Your task to perform on an android device: Open location settings Image 0: 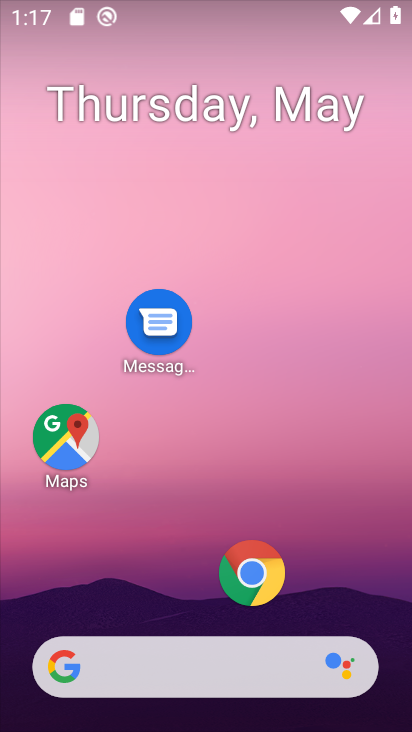
Step 0: drag from (219, 590) to (226, 283)
Your task to perform on an android device: Open location settings Image 1: 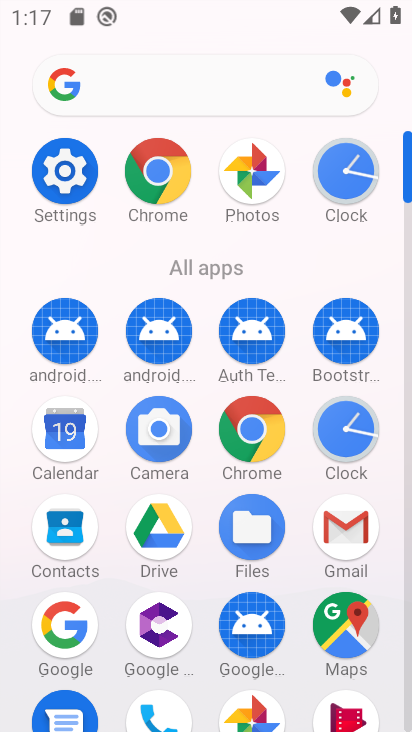
Step 1: click (82, 160)
Your task to perform on an android device: Open location settings Image 2: 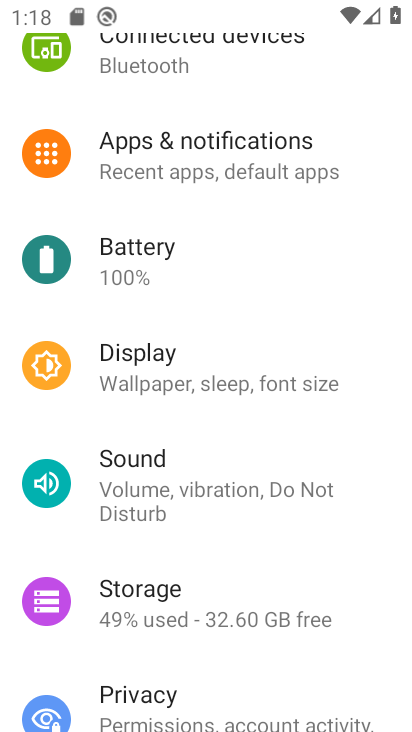
Step 2: drag from (240, 560) to (294, 104)
Your task to perform on an android device: Open location settings Image 3: 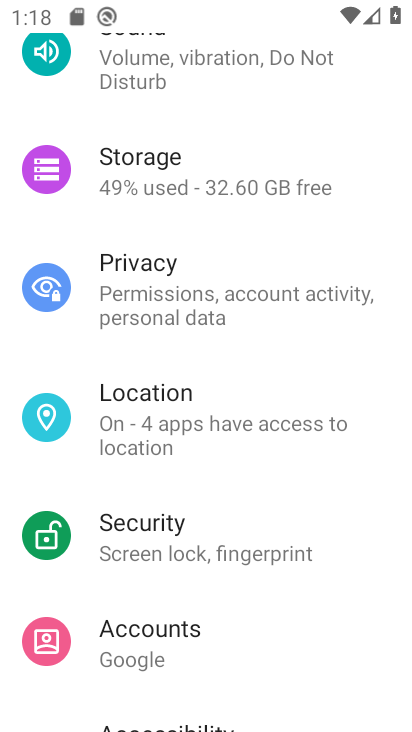
Step 3: click (199, 413)
Your task to perform on an android device: Open location settings Image 4: 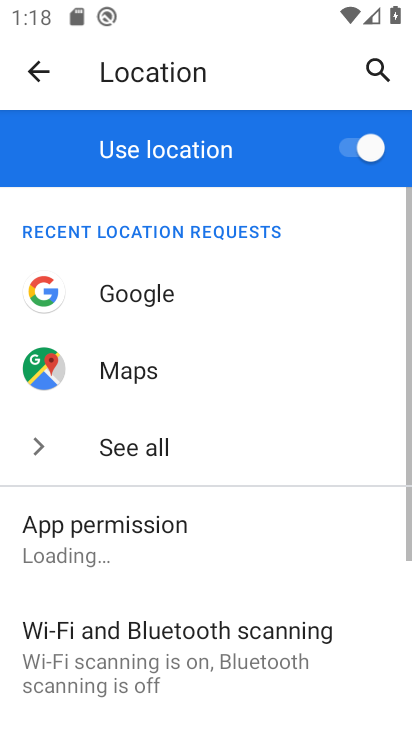
Step 4: task complete